Your task to perform on an android device: Do I have any events today? Image 0: 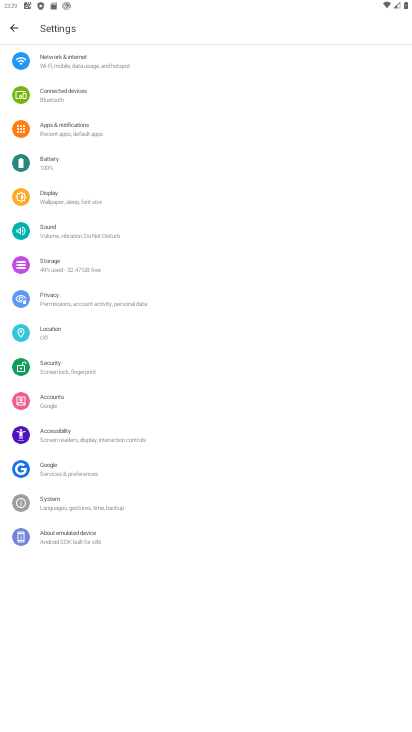
Step 0: press home button
Your task to perform on an android device: Do I have any events today? Image 1: 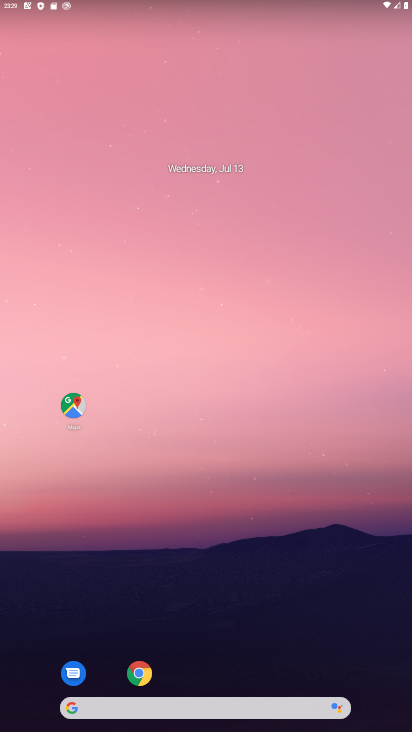
Step 1: drag from (213, 656) to (191, 214)
Your task to perform on an android device: Do I have any events today? Image 2: 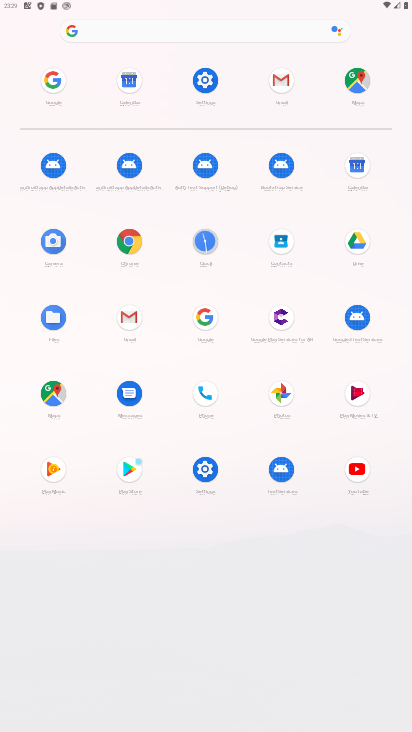
Step 2: click (355, 170)
Your task to perform on an android device: Do I have any events today? Image 3: 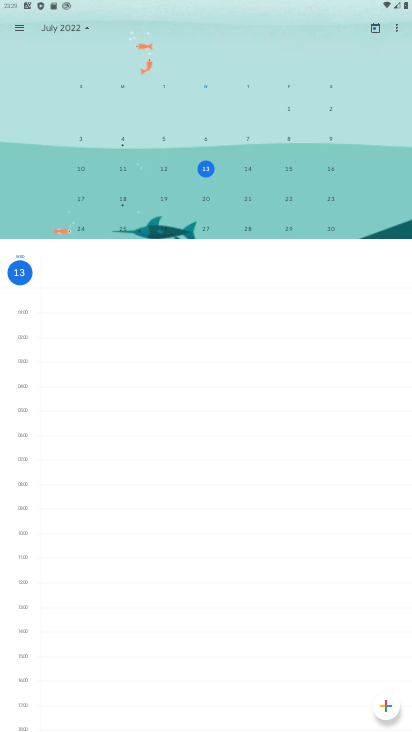
Step 3: task complete